Your task to perform on an android device: Clear the shopping cart on amazon. Search for jbl flip 4 on amazon, select the first entry, and add it to the cart. Image 0: 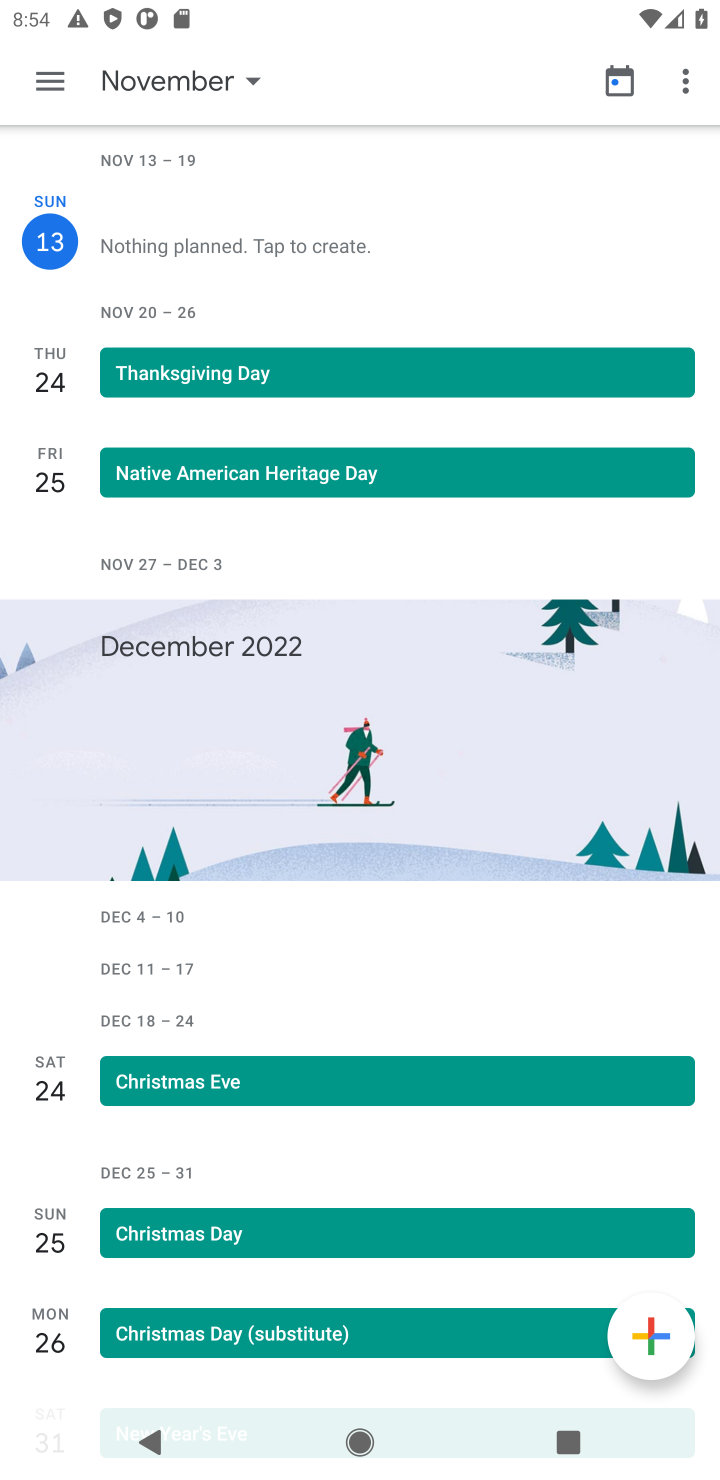
Step 0: press home button
Your task to perform on an android device: Clear the shopping cart on amazon. Search for jbl flip 4 on amazon, select the first entry, and add it to the cart. Image 1: 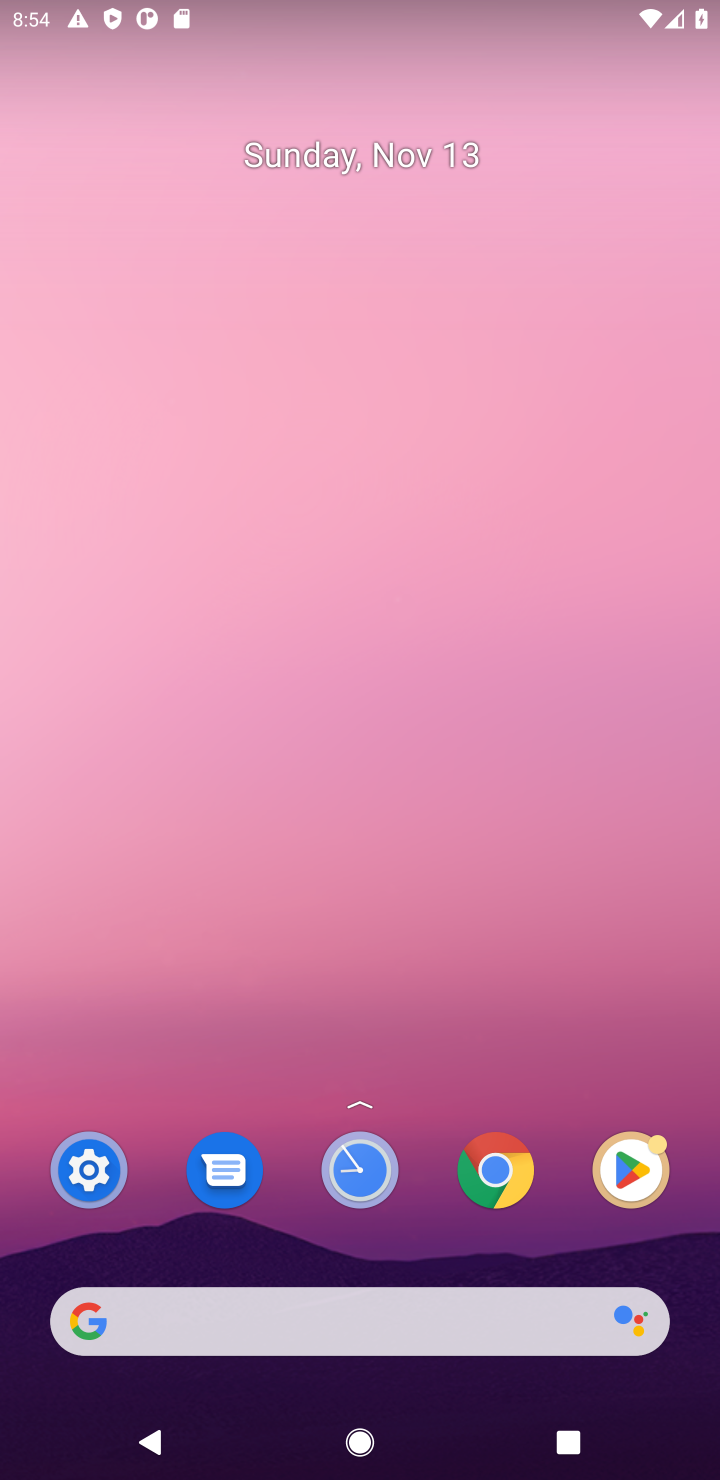
Step 1: click (462, 1330)
Your task to perform on an android device: Clear the shopping cart on amazon. Search for jbl flip 4 on amazon, select the first entry, and add it to the cart. Image 2: 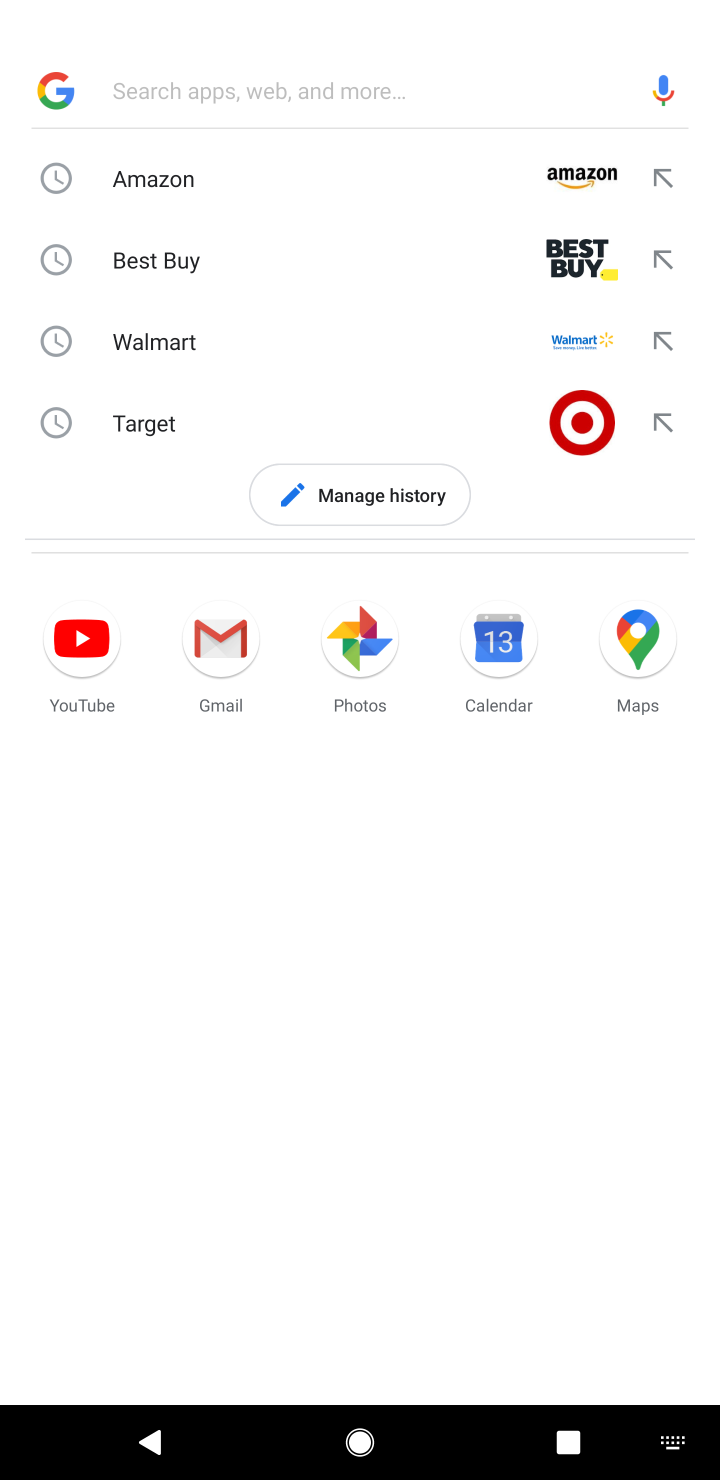
Step 2: type "amazon"
Your task to perform on an android device: Clear the shopping cart on amazon. Search for jbl flip 4 on amazon, select the first entry, and add it to the cart. Image 3: 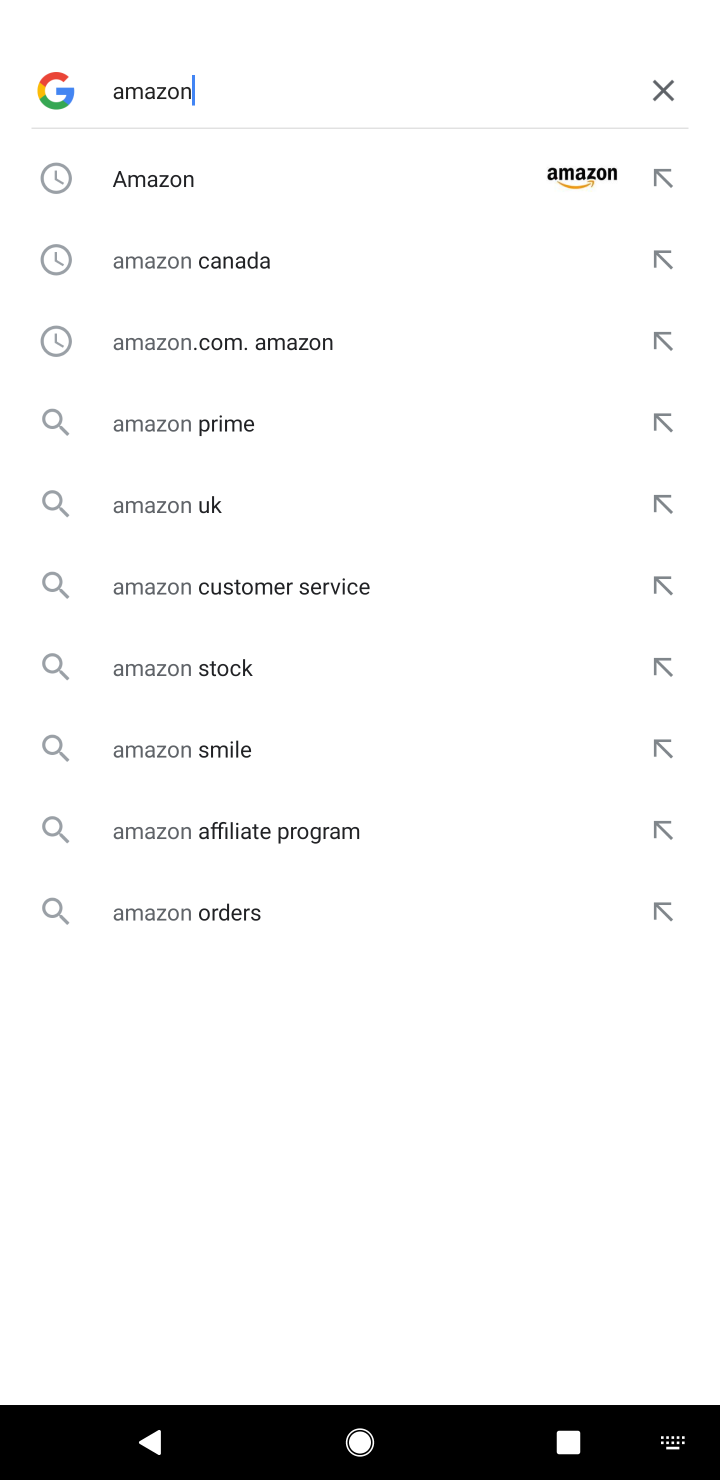
Step 3: click (289, 190)
Your task to perform on an android device: Clear the shopping cart on amazon. Search for jbl flip 4 on amazon, select the first entry, and add it to the cart. Image 4: 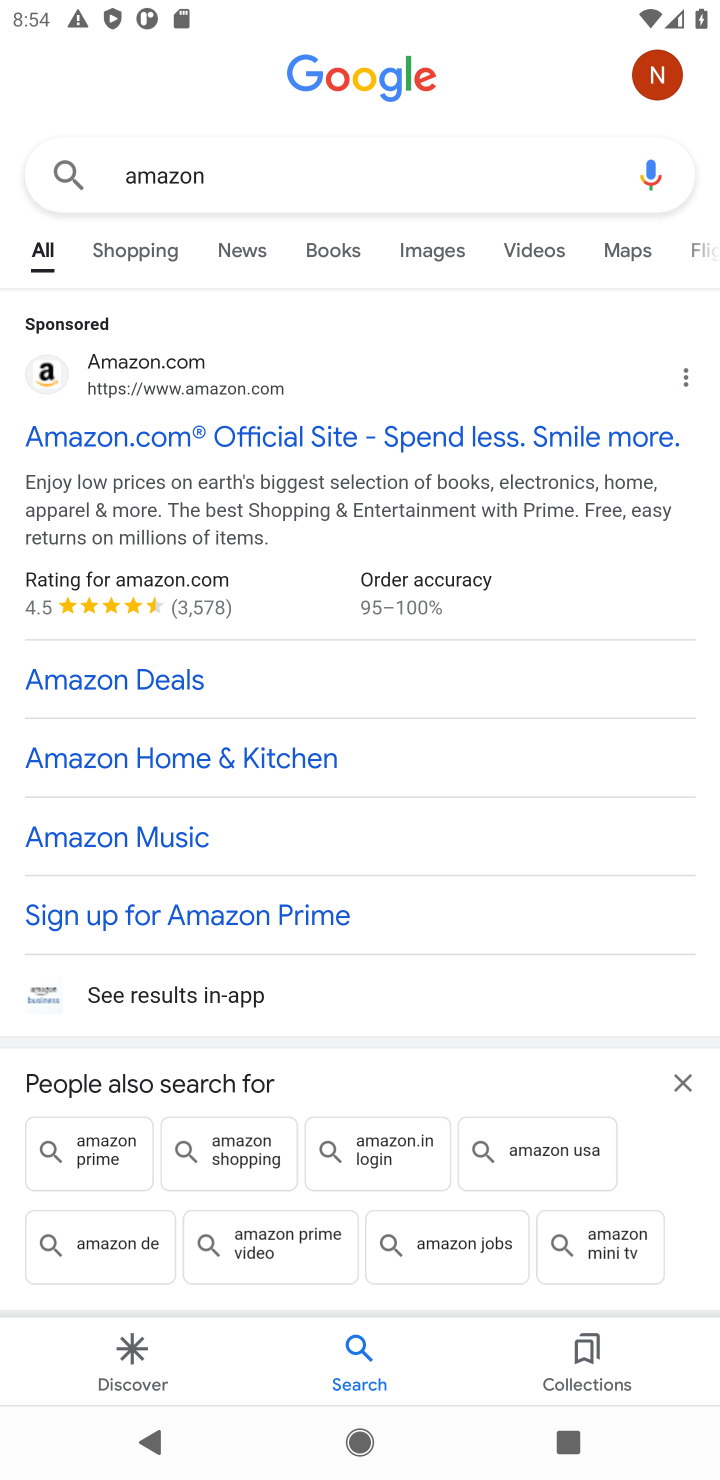
Step 4: click (209, 401)
Your task to perform on an android device: Clear the shopping cart on amazon. Search for jbl flip 4 on amazon, select the first entry, and add it to the cart. Image 5: 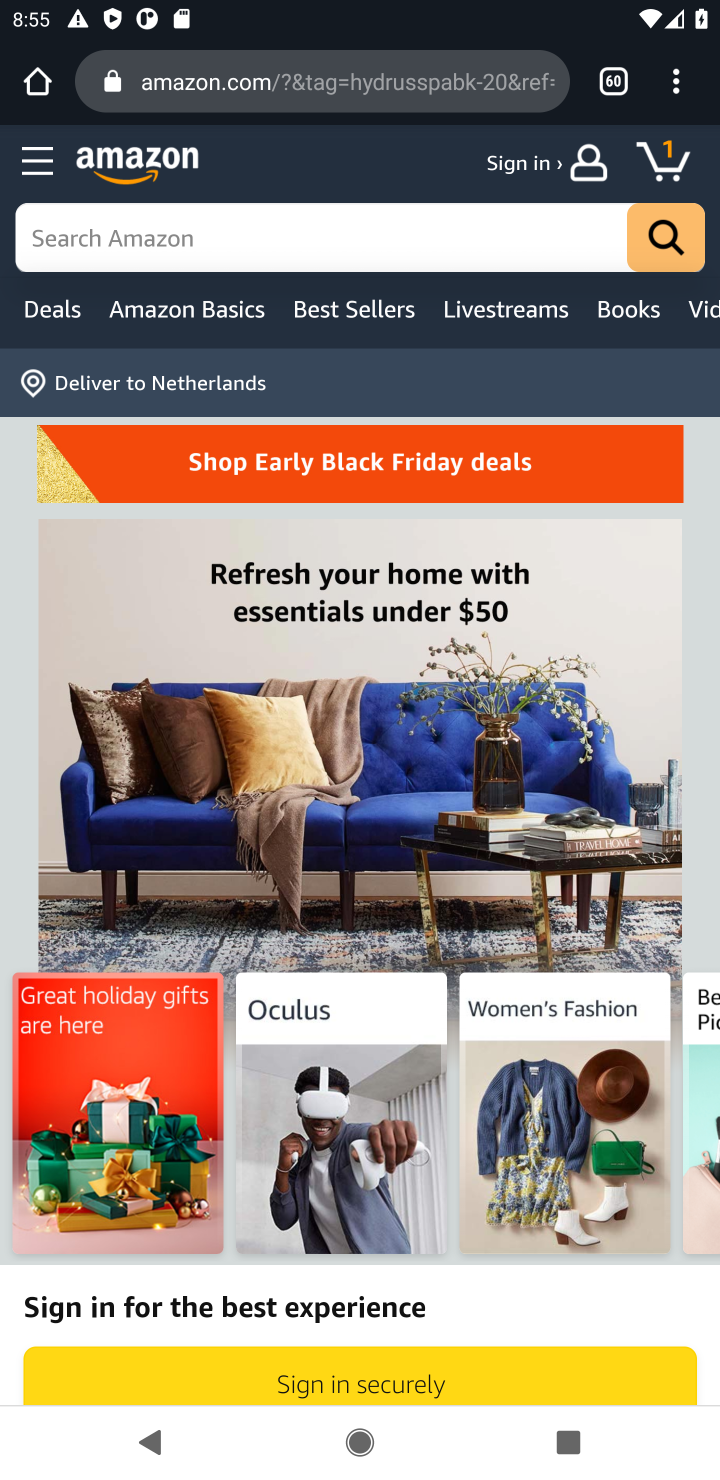
Step 5: click (308, 260)
Your task to perform on an android device: Clear the shopping cart on amazon. Search for jbl flip 4 on amazon, select the first entry, and add it to the cart. Image 6: 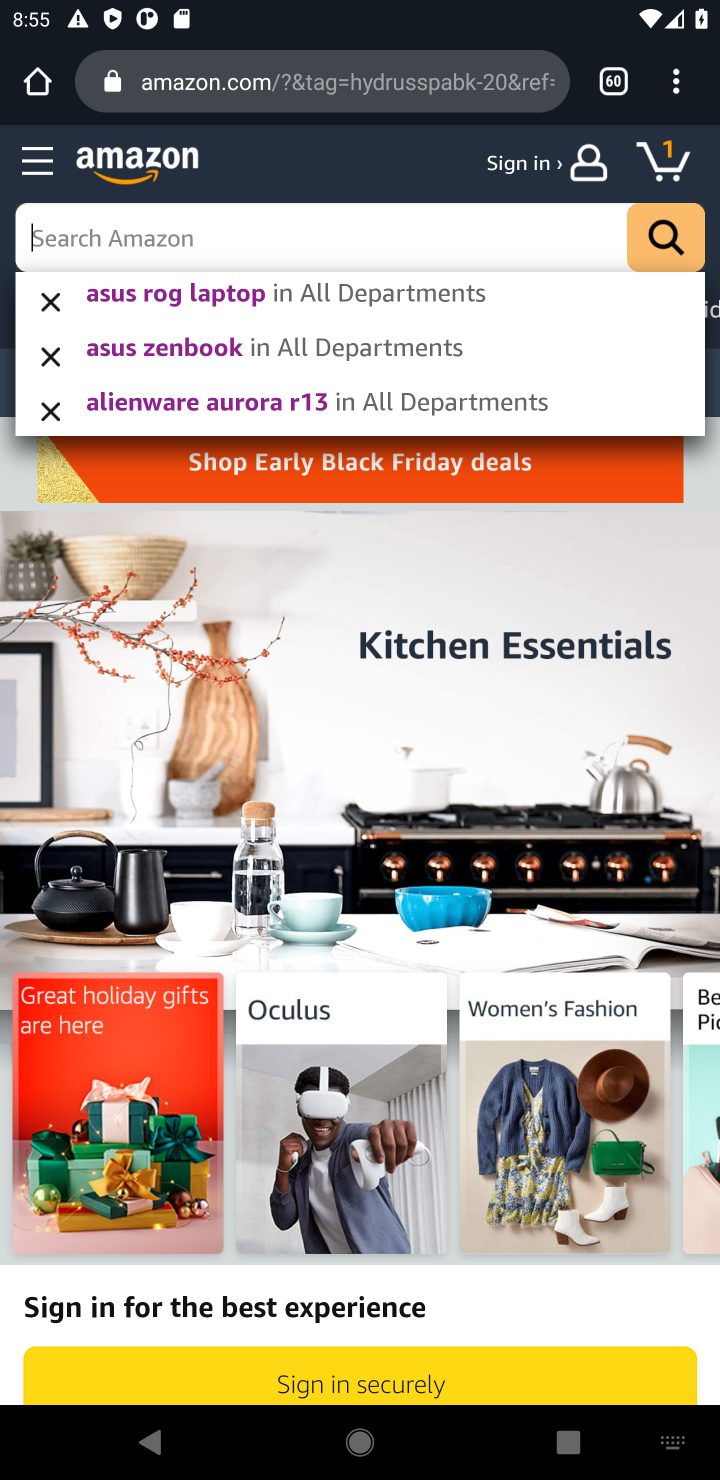
Step 6: type "jbl flip 4"
Your task to perform on an android device: Clear the shopping cart on amazon. Search for jbl flip 4 on amazon, select the first entry, and add it to the cart. Image 7: 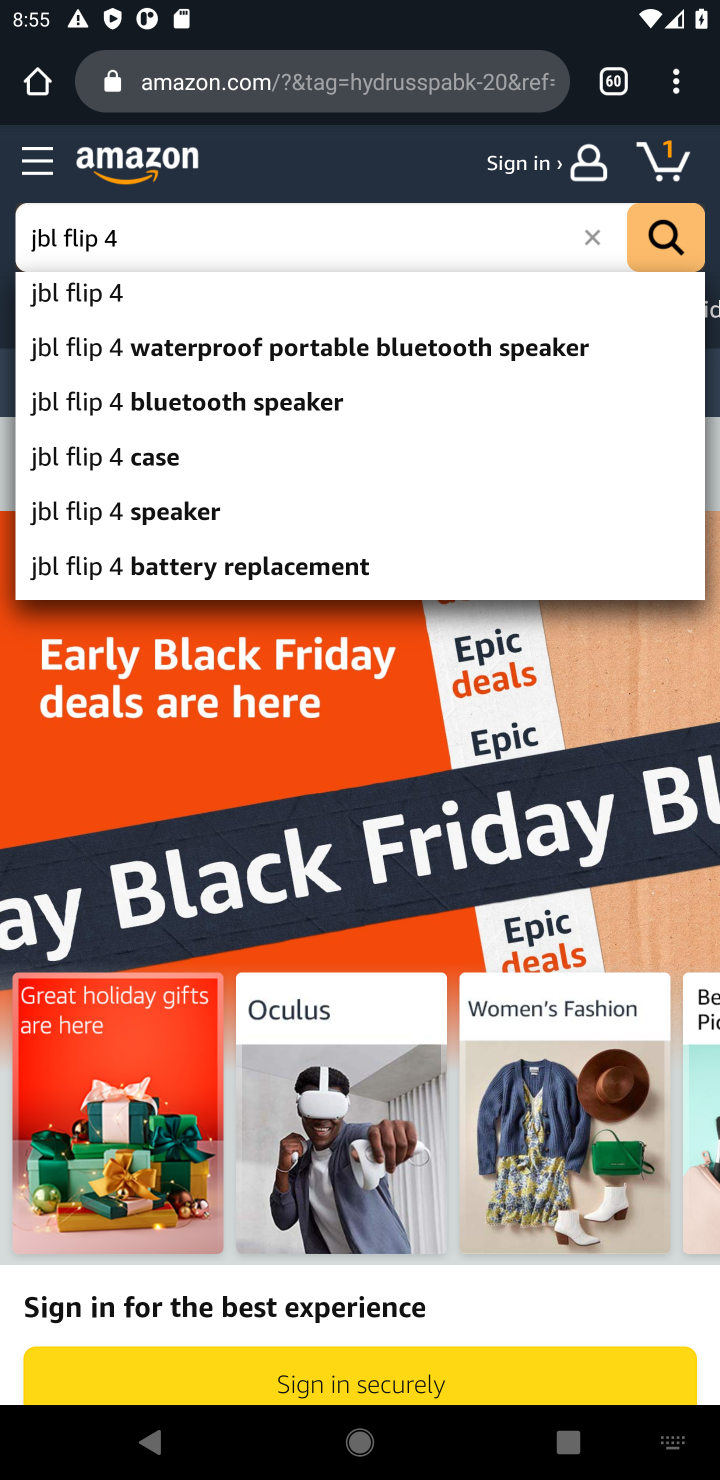
Step 7: click (142, 302)
Your task to perform on an android device: Clear the shopping cart on amazon. Search for jbl flip 4 on amazon, select the first entry, and add it to the cart. Image 8: 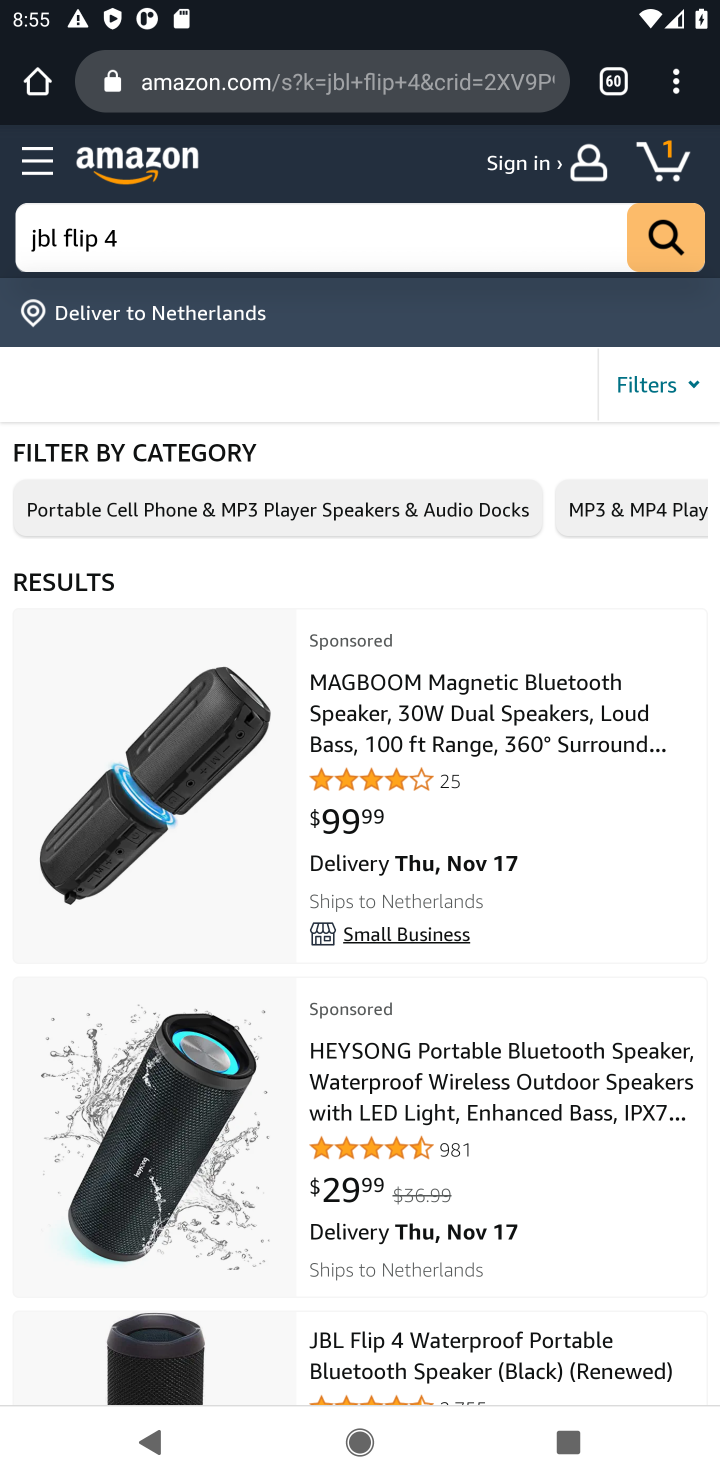
Step 8: click (382, 683)
Your task to perform on an android device: Clear the shopping cart on amazon. Search for jbl flip 4 on amazon, select the first entry, and add it to the cart. Image 9: 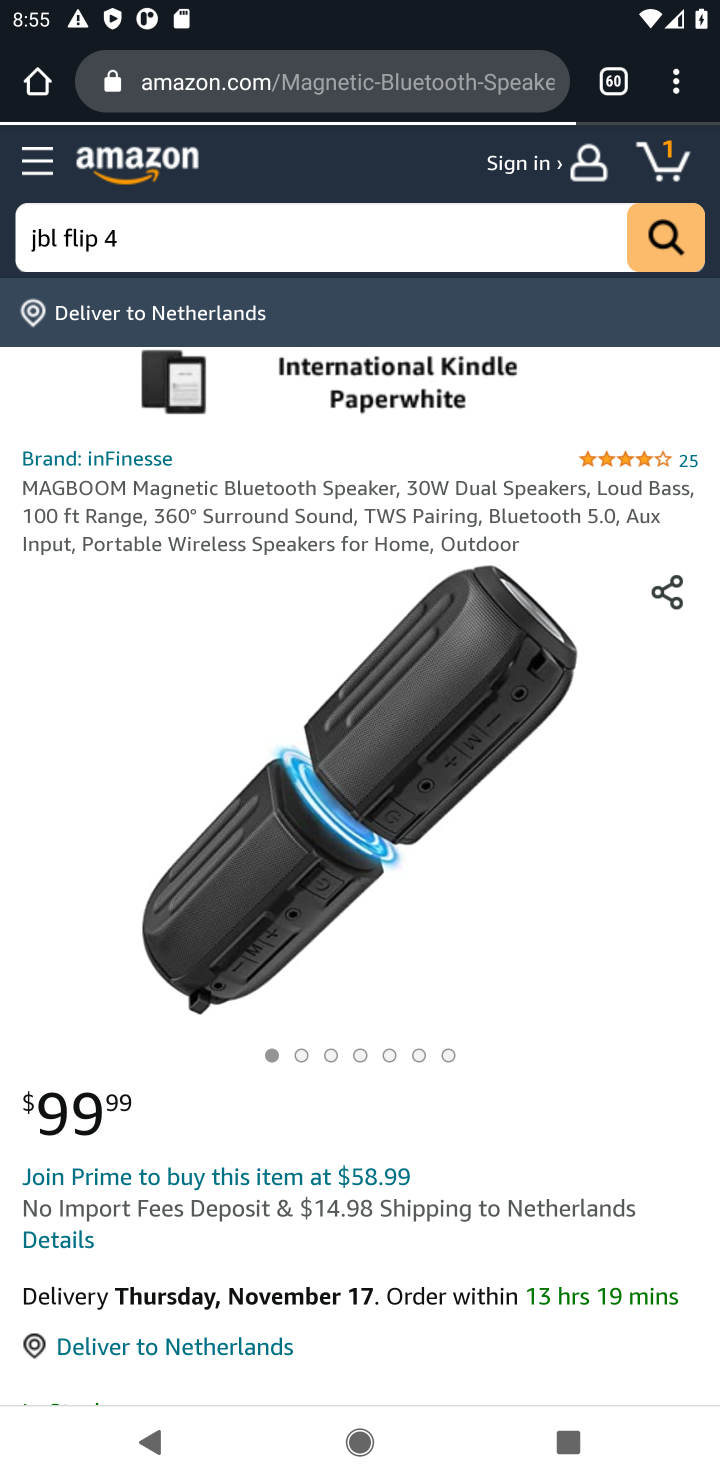
Step 9: task complete